Your task to perform on an android device: snooze an email in the gmail app Image 0: 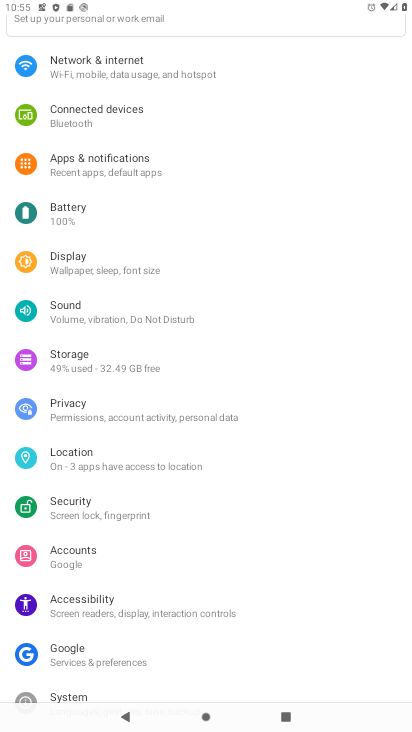
Step 0: press home button
Your task to perform on an android device: snooze an email in the gmail app Image 1: 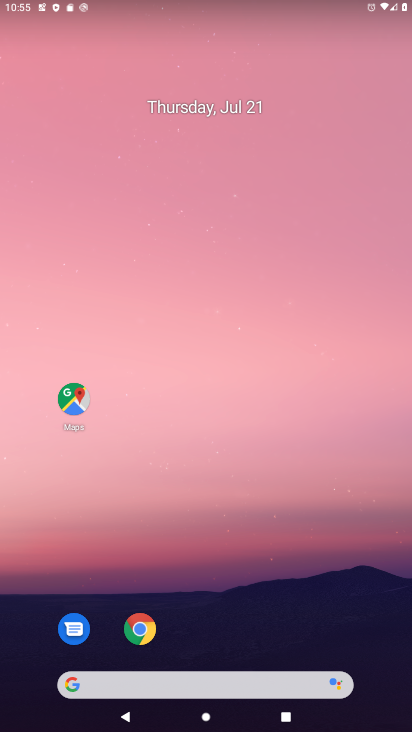
Step 1: drag from (337, 587) to (411, 40)
Your task to perform on an android device: snooze an email in the gmail app Image 2: 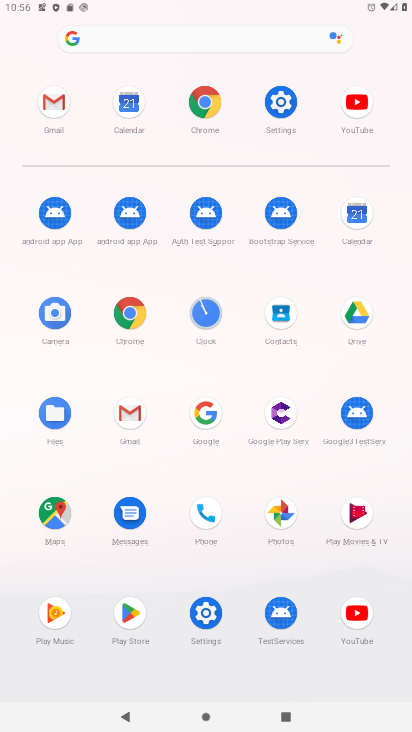
Step 2: click (52, 109)
Your task to perform on an android device: snooze an email in the gmail app Image 3: 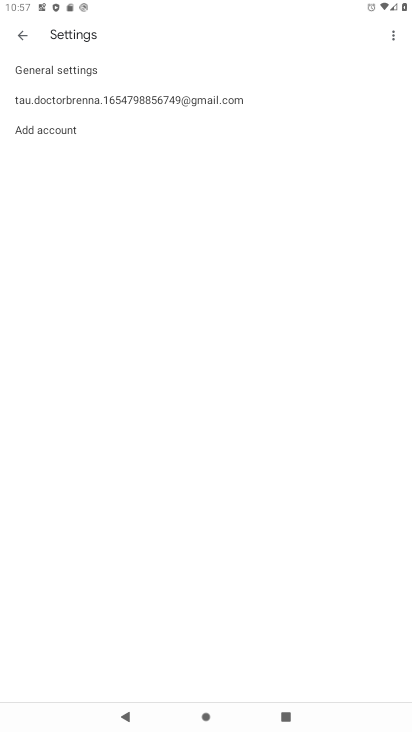
Step 3: click (221, 98)
Your task to perform on an android device: snooze an email in the gmail app Image 4: 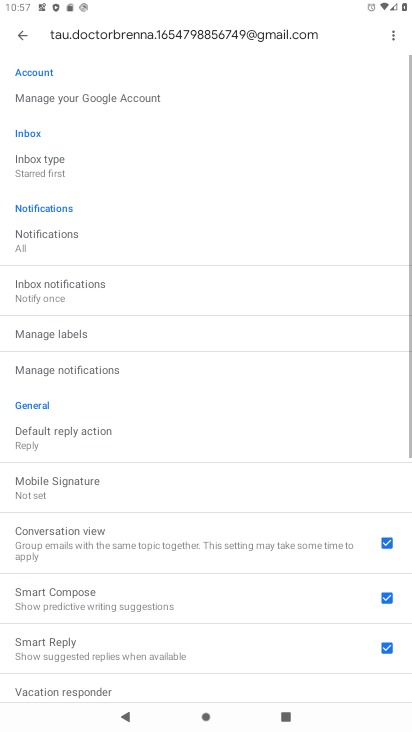
Step 4: click (15, 24)
Your task to perform on an android device: snooze an email in the gmail app Image 5: 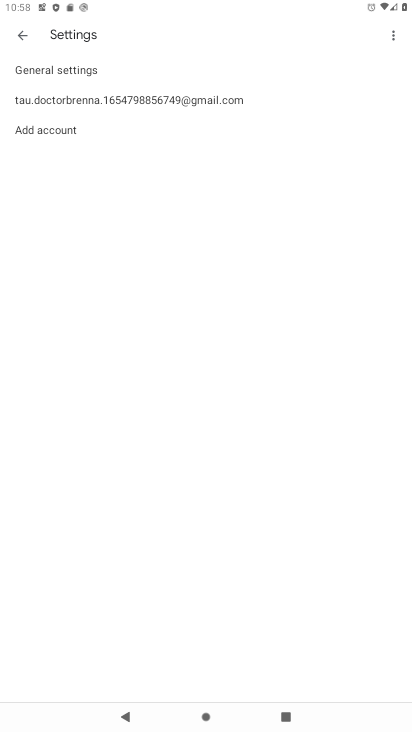
Step 5: click (22, 38)
Your task to perform on an android device: snooze an email in the gmail app Image 6: 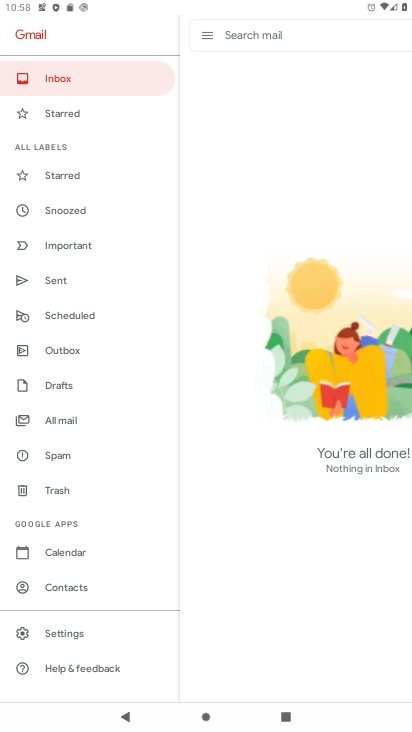
Step 6: task complete